Your task to perform on an android device: set the timer Image 0: 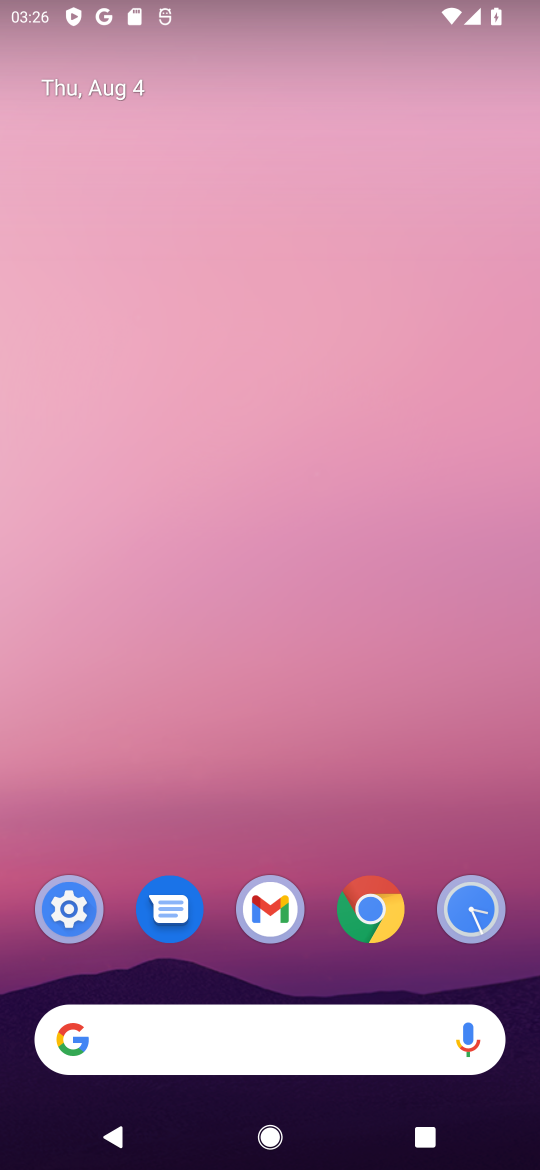
Step 0: click (468, 916)
Your task to perform on an android device: set the timer Image 1: 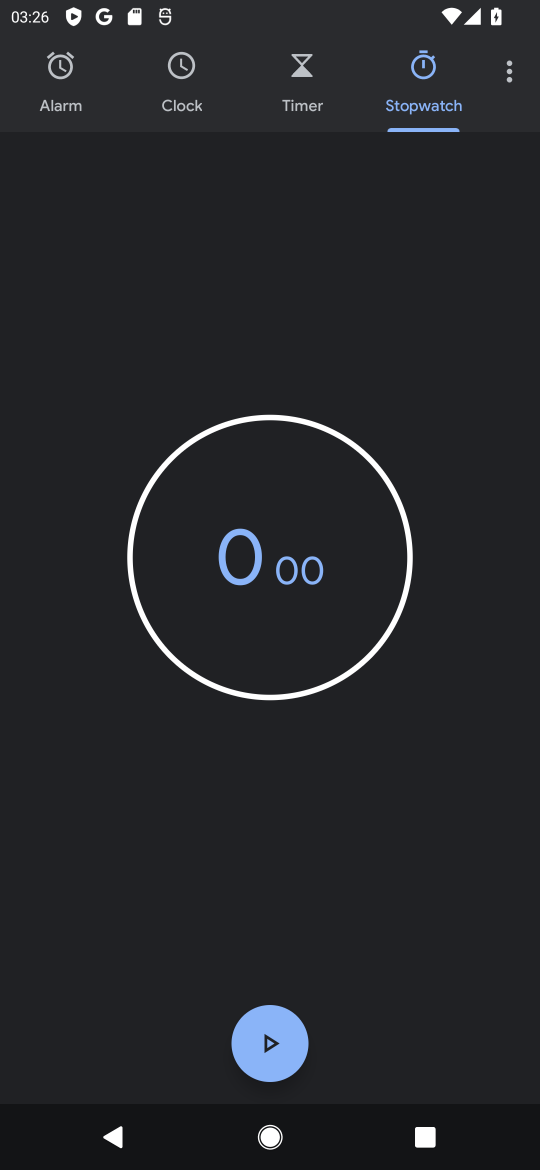
Step 1: click (287, 83)
Your task to perform on an android device: set the timer Image 2: 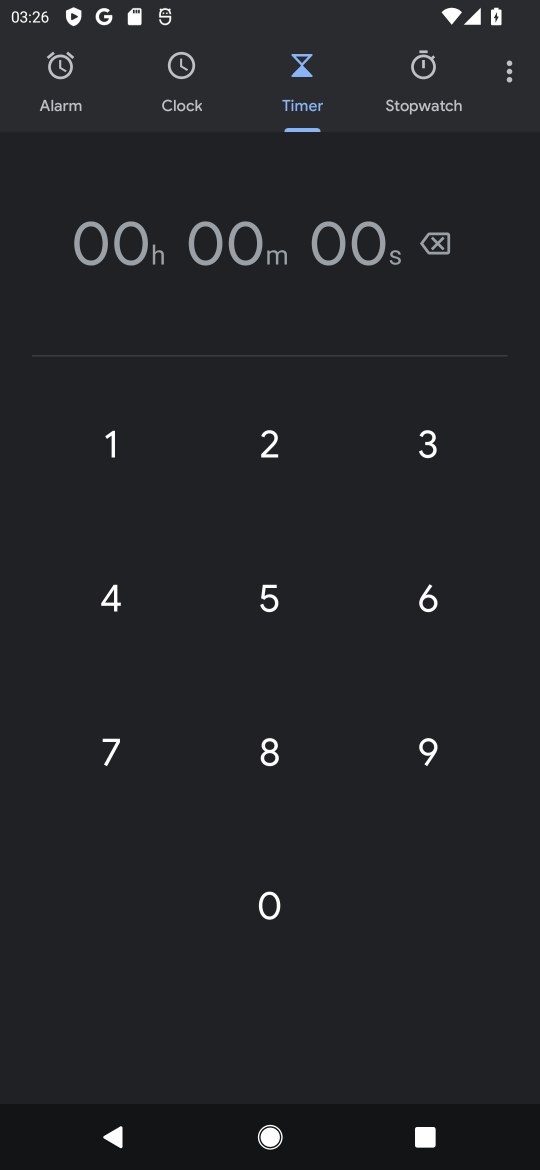
Step 2: click (258, 612)
Your task to perform on an android device: set the timer Image 3: 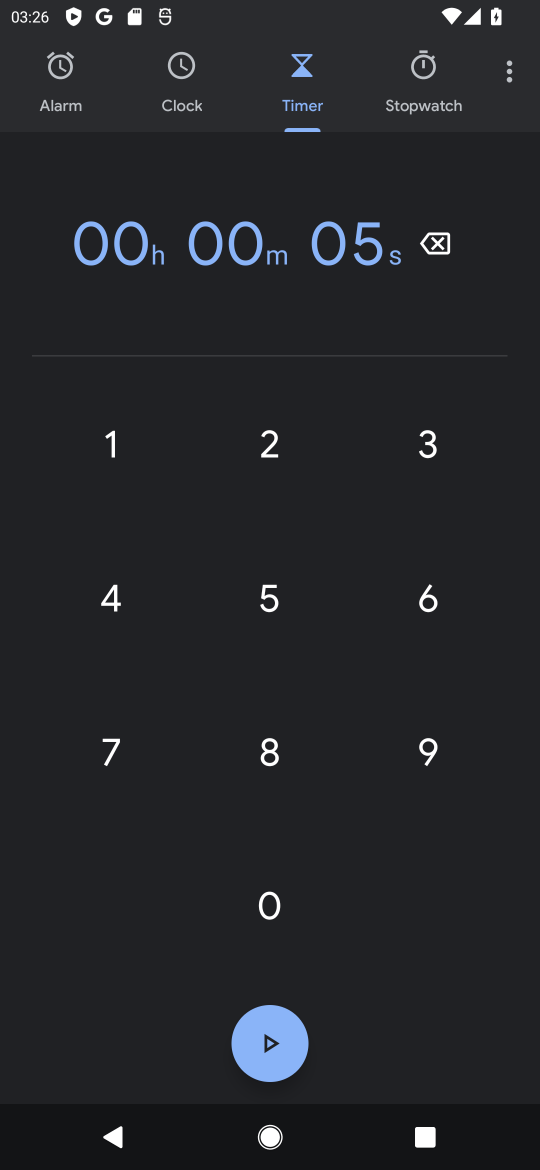
Step 3: click (115, 603)
Your task to perform on an android device: set the timer Image 4: 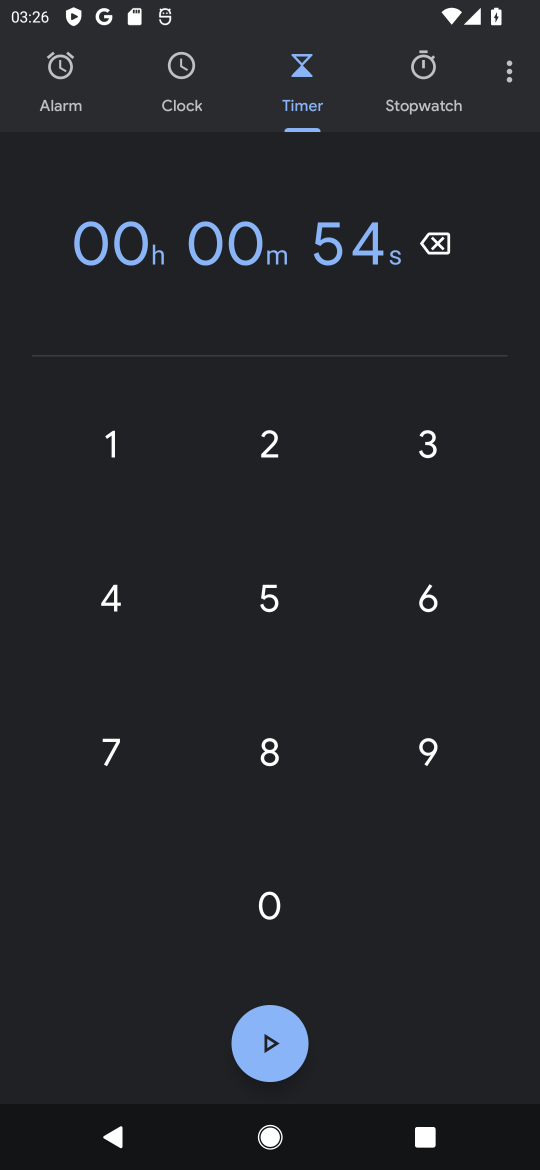
Step 4: click (273, 1034)
Your task to perform on an android device: set the timer Image 5: 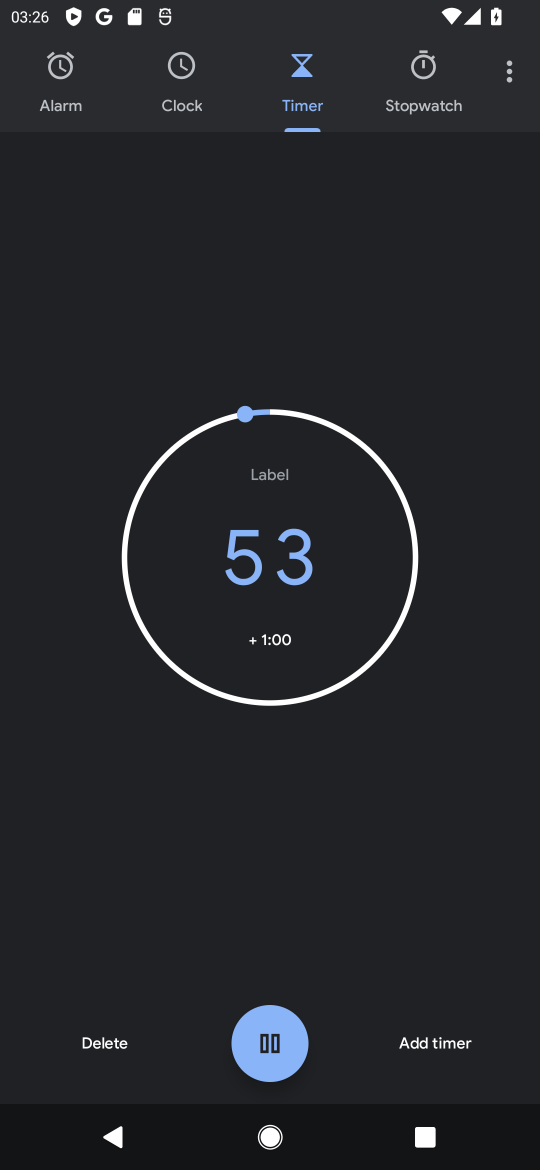
Step 5: click (273, 1034)
Your task to perform on an android device: set the timer Image 6: 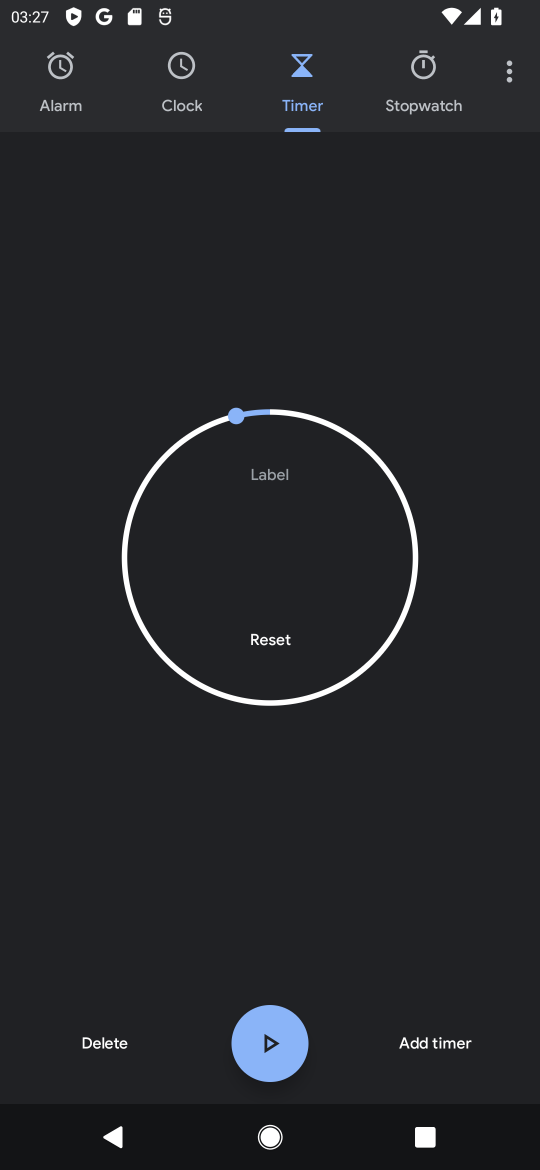
Step 6: task complete